Your task to perform on an android device: turn off notifications in google photos Image 0: 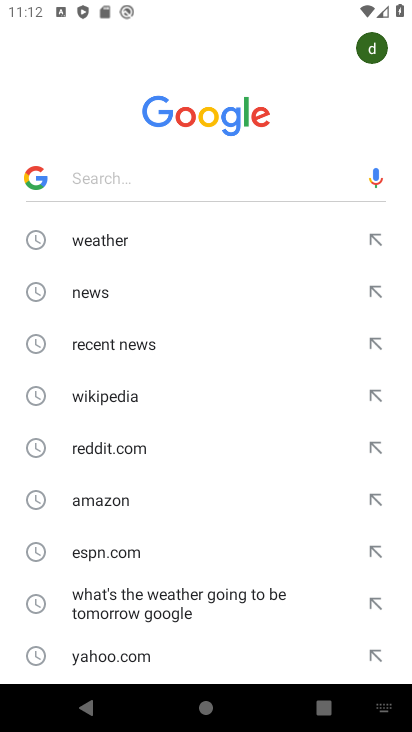
Step 0: click (80, 714)
Your task to perform on an android device: turn off notifications in google photos Image 1: 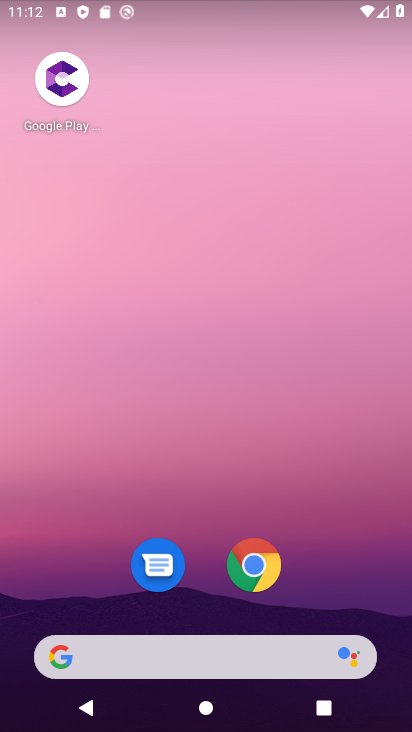
Step 1: drag from (16, 646) to (234, 217)
Your task to perform on an android device: turn off notifications in google photos Image 2: 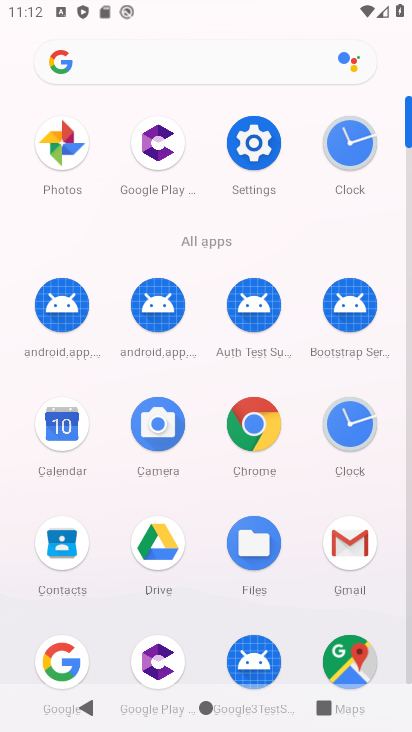
Step 2: drag from (48, 630) to (254, 156)
Your task to perform on an android device: turn off notifications in google photos Image 3: 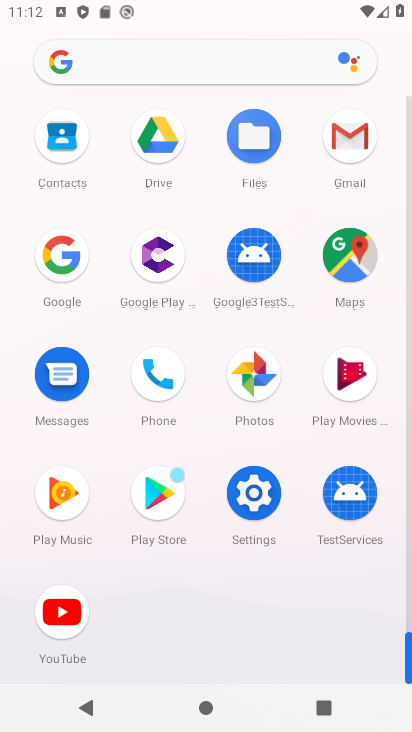
Step 3: click (248, 376)
Your task to perform on an android device: turn off notifications in google photos Image 4: 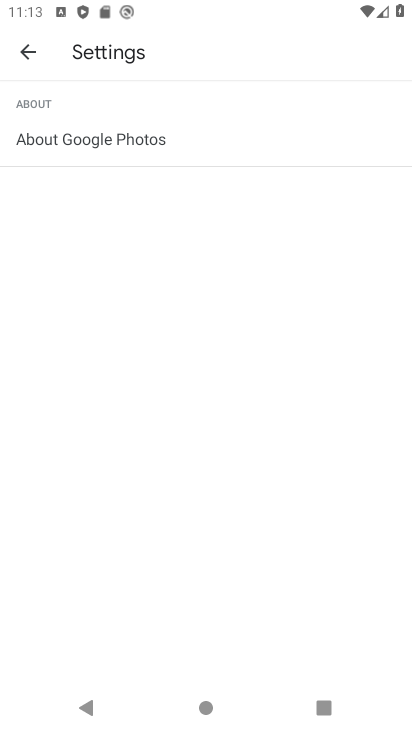
Step 4: click (82, 715)
Your task to perform on an android device: turn off notifications in google photos Image 5: 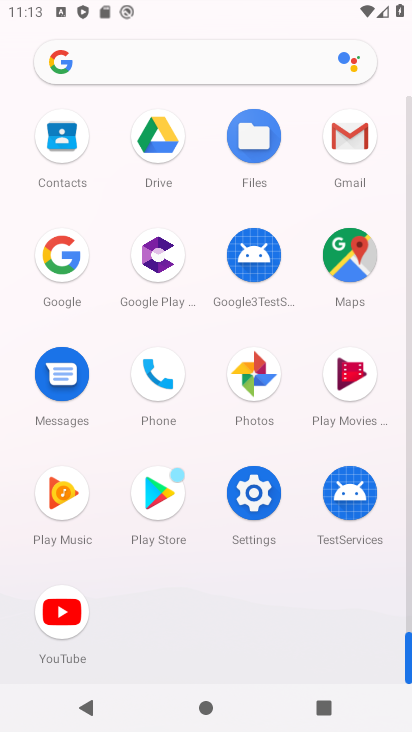
Step 5: click (266, 382)
Your task to perform on an android device: turn off notifications in google photos Image 6: 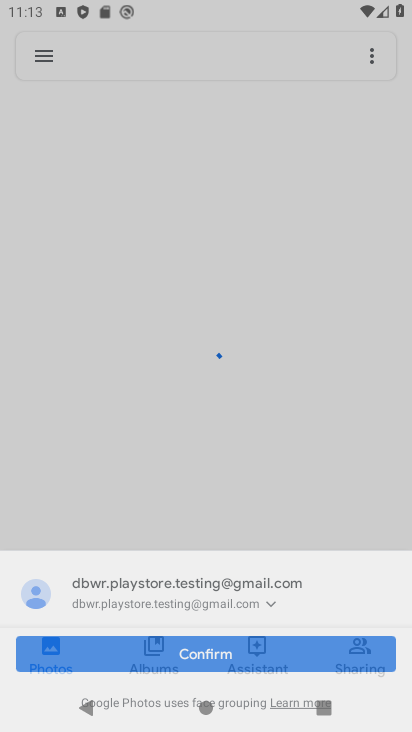
Step 6: click (39, 50)
Your task to perform on an android device: turn off notifications in google photos Image 7: 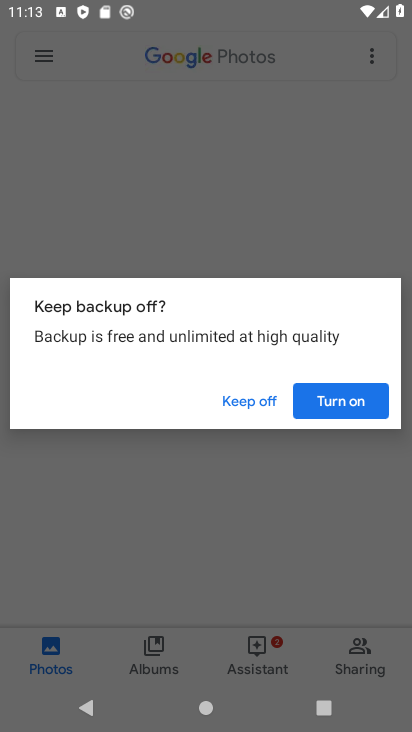
Step 7: click (315, 400)
Your task to perform on an android device: turn off notifications in google photos Image 8: 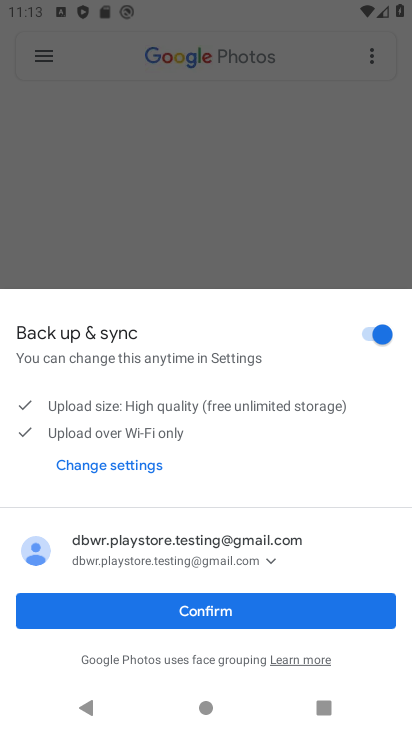
Step 8: click (176, 605)
Your task to perform on an android device: turn off notifications in google photos Image 9: 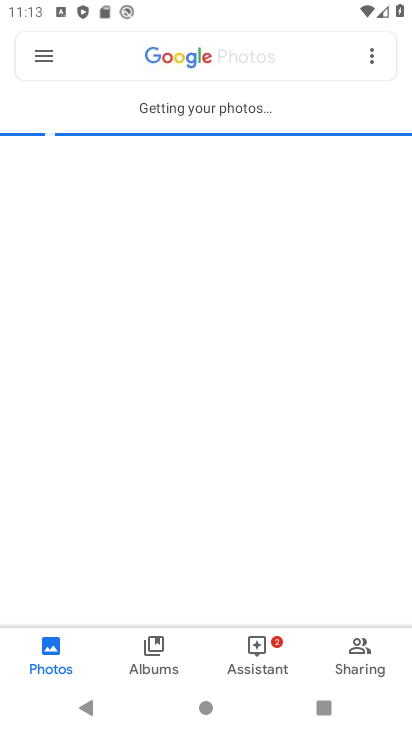
Step 9: click (42, 63)
Your task to perform on an android device: turn off notifications in google photos Image 10: 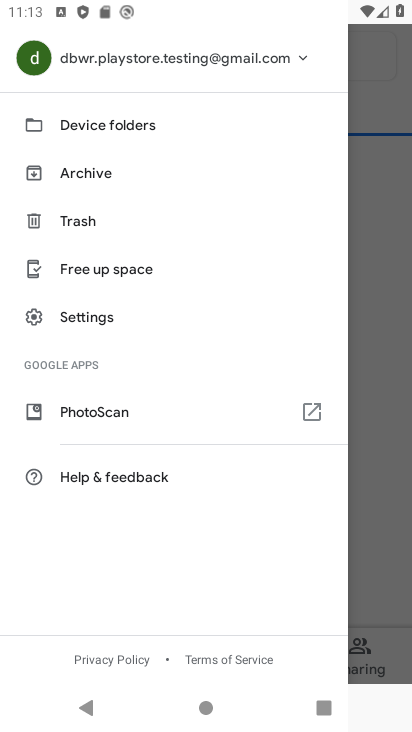
Step 10: click (125, 315)
Your task to perform on an android device: turn off notifications in google photos Image 11: 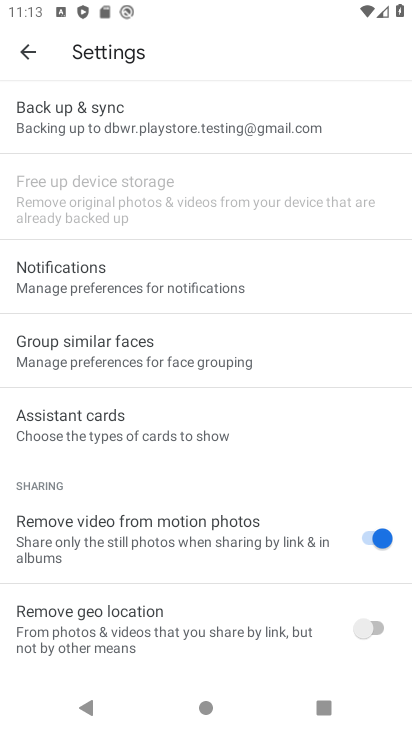
Step 11: click (187, 273)
Your task to perform on an android device: turn off notifications in google photos Image 12: 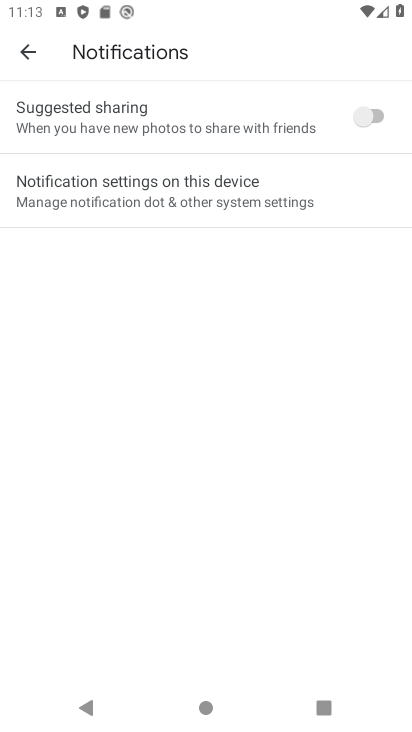
Step 12: click (365, 114)
Your task to perform on an android device: turn off notifications in google photos Image 13: 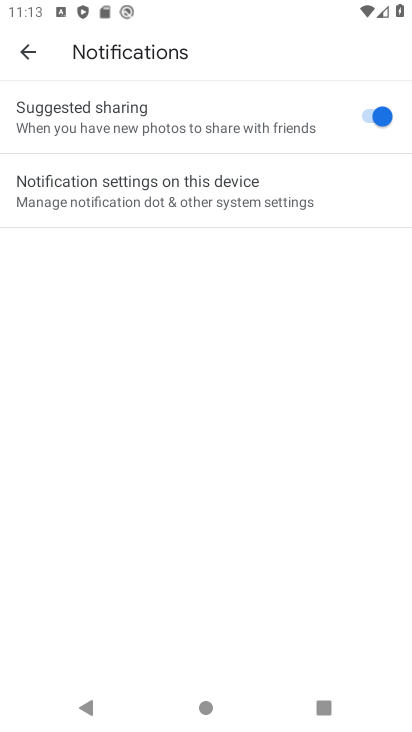
Step 13: task complete